Your task to perform on an android device: Add bose soundsport free to the cart on costco.com, then select checkout. Image 0: 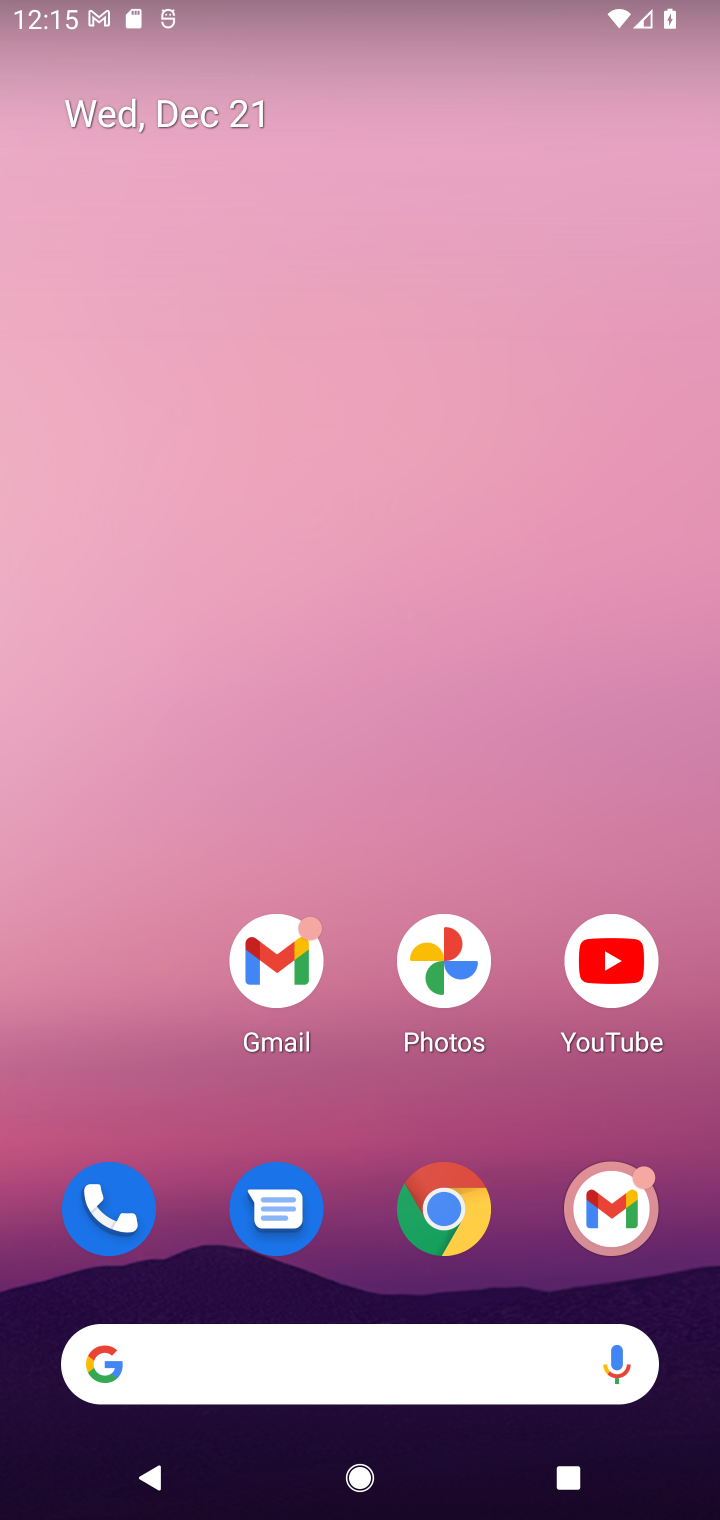
Step 0: click (457, 1215)
Your task to perform on an android device: Add bose soundsport free to the cart on costco.com, then select checkout. Image 1: 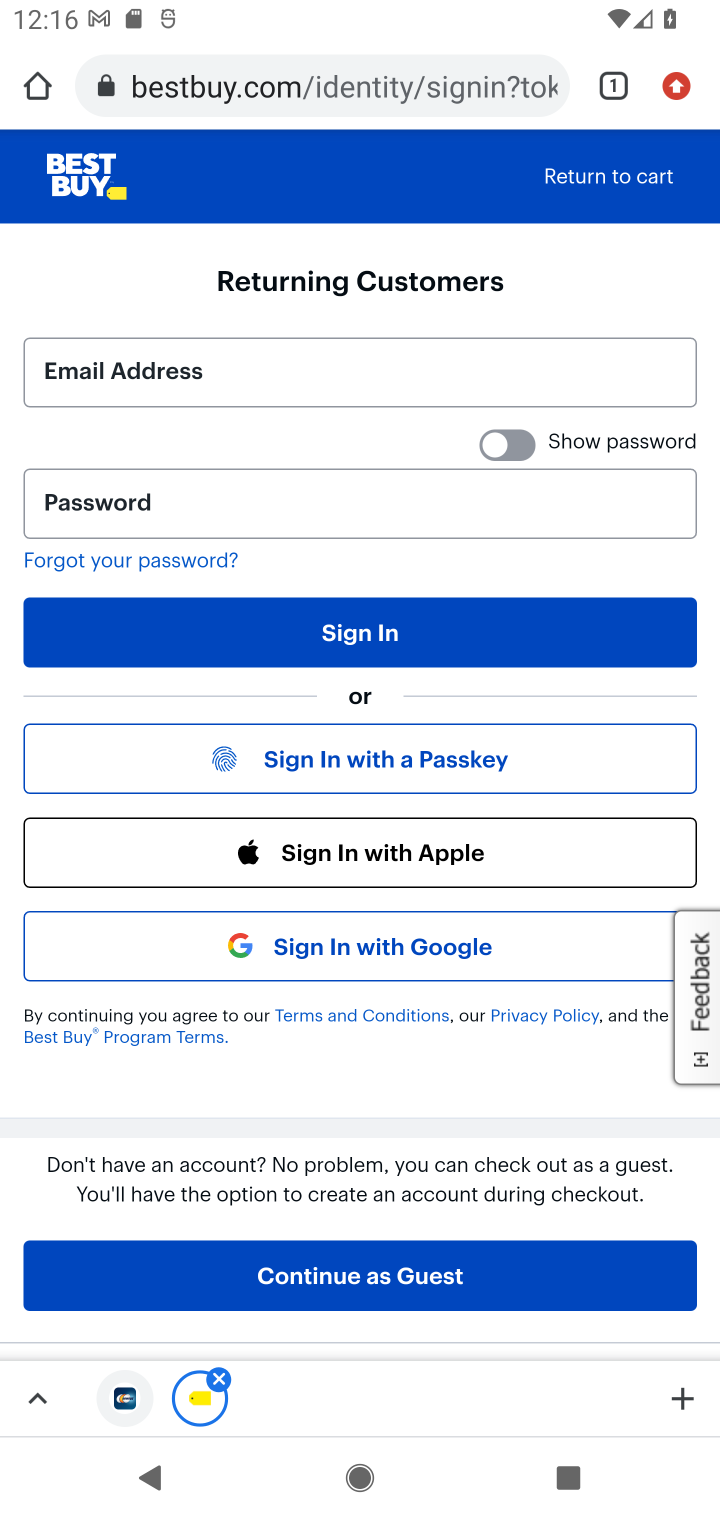
Step 1: click (238, 96)
Your task to perform on an android device: Add bose soundsport free to the cart on costco.com, then select checkout. Image 2: 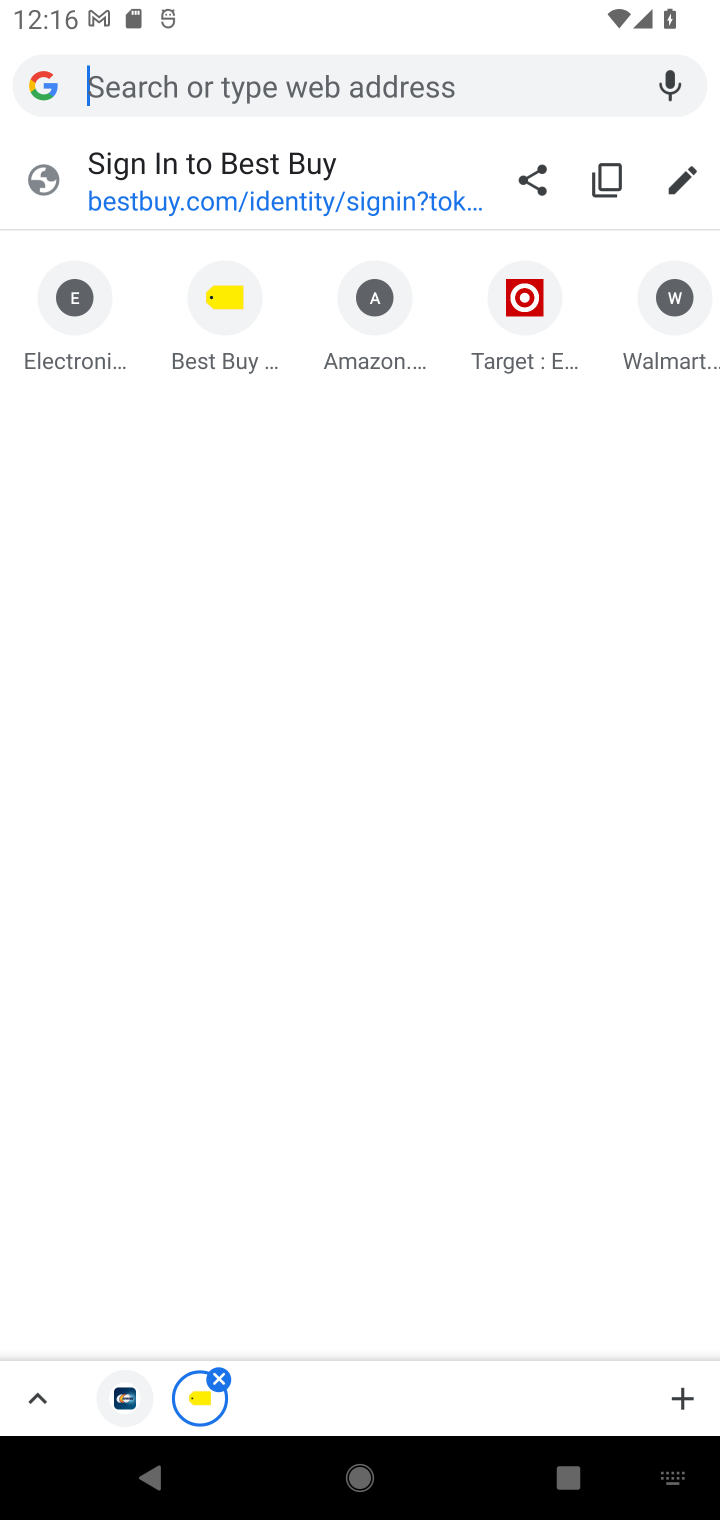
Step 2: type "costco.com"
Your task to perform on an android device: Add bose soundsport free to the cart on costco.com, then select checkout. Image 3: 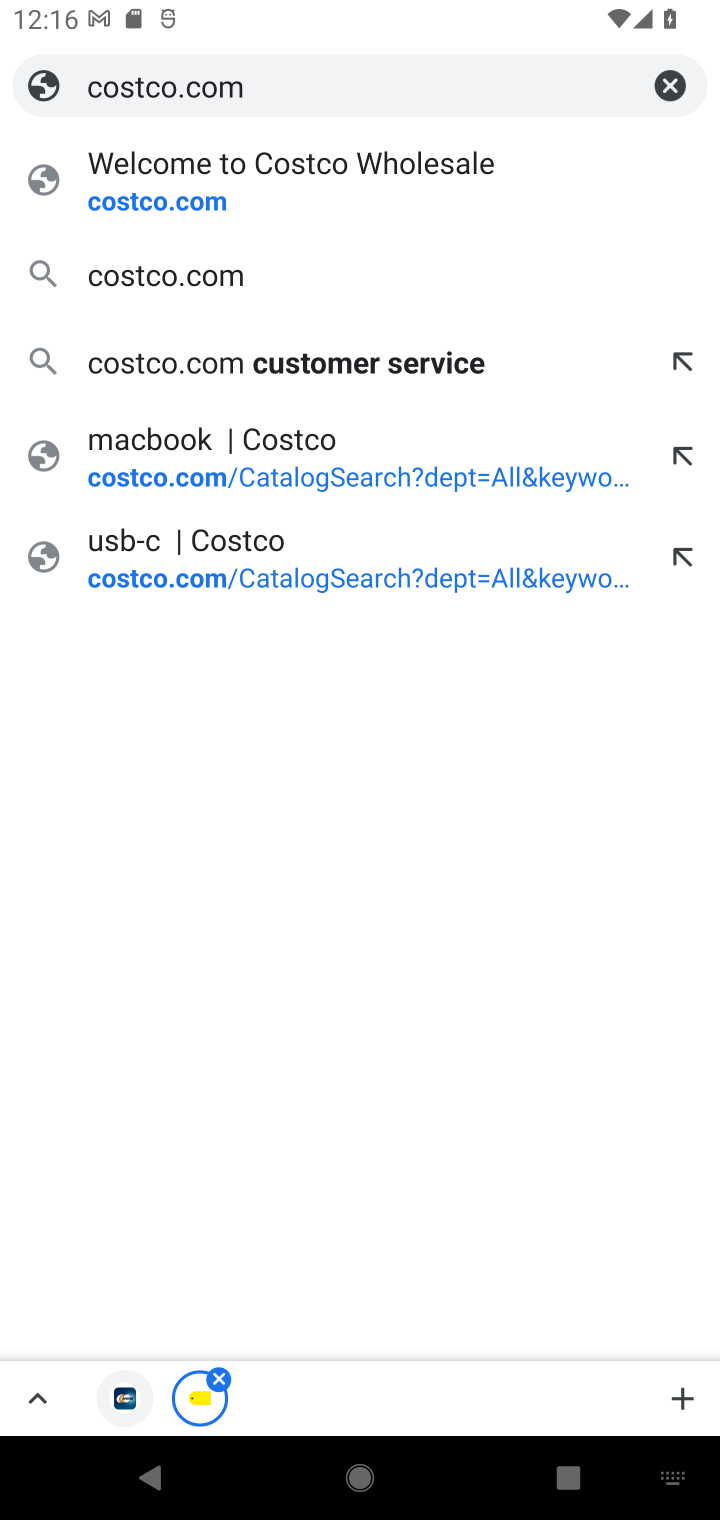
Step 3: click (117, 206)
Your task to perform on an android device: Add bose soundsport free to the cart on costco.com, then select checkout. Image 4: 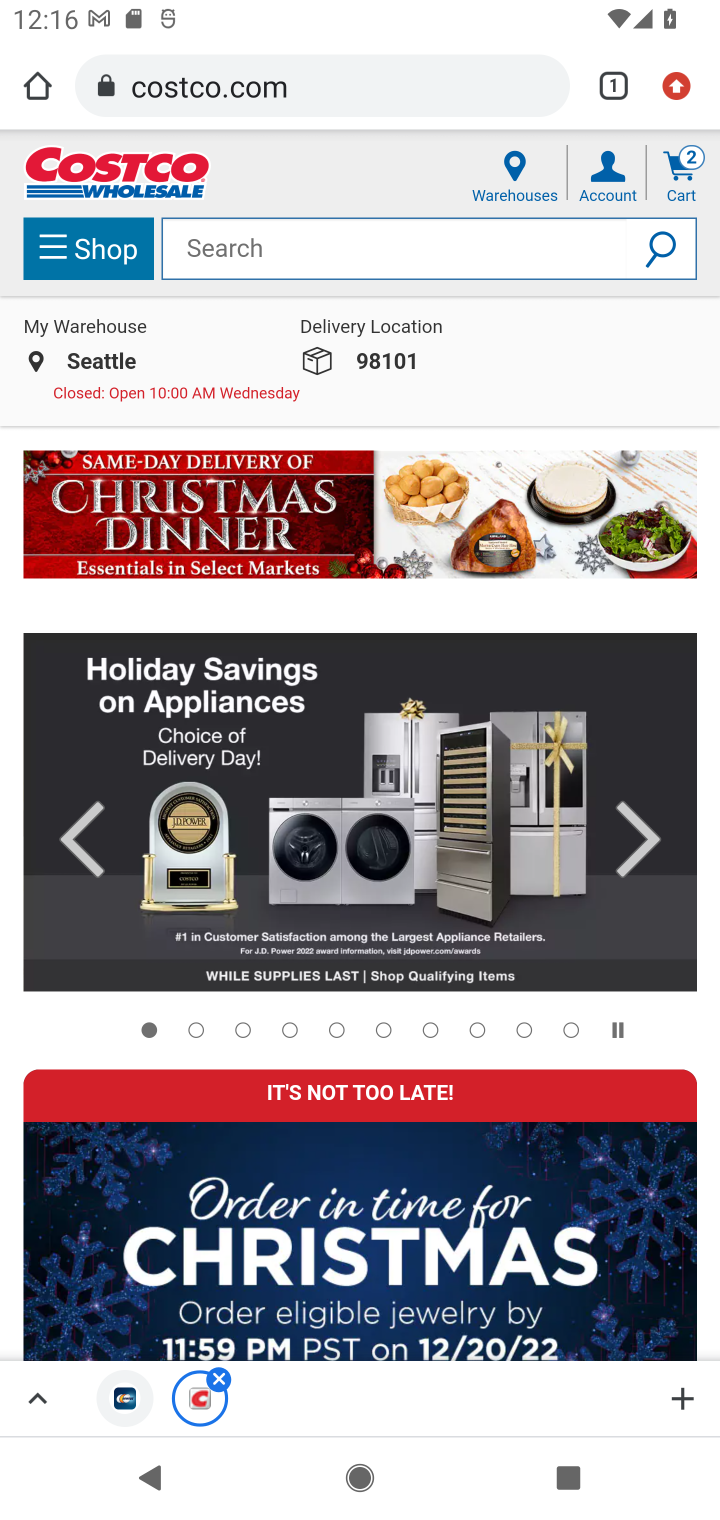
Step 4: click (208, 260)
Your task to perform on an android device: Add bose soundsport free to the cart on costco.com, then select checkout. Image 5: 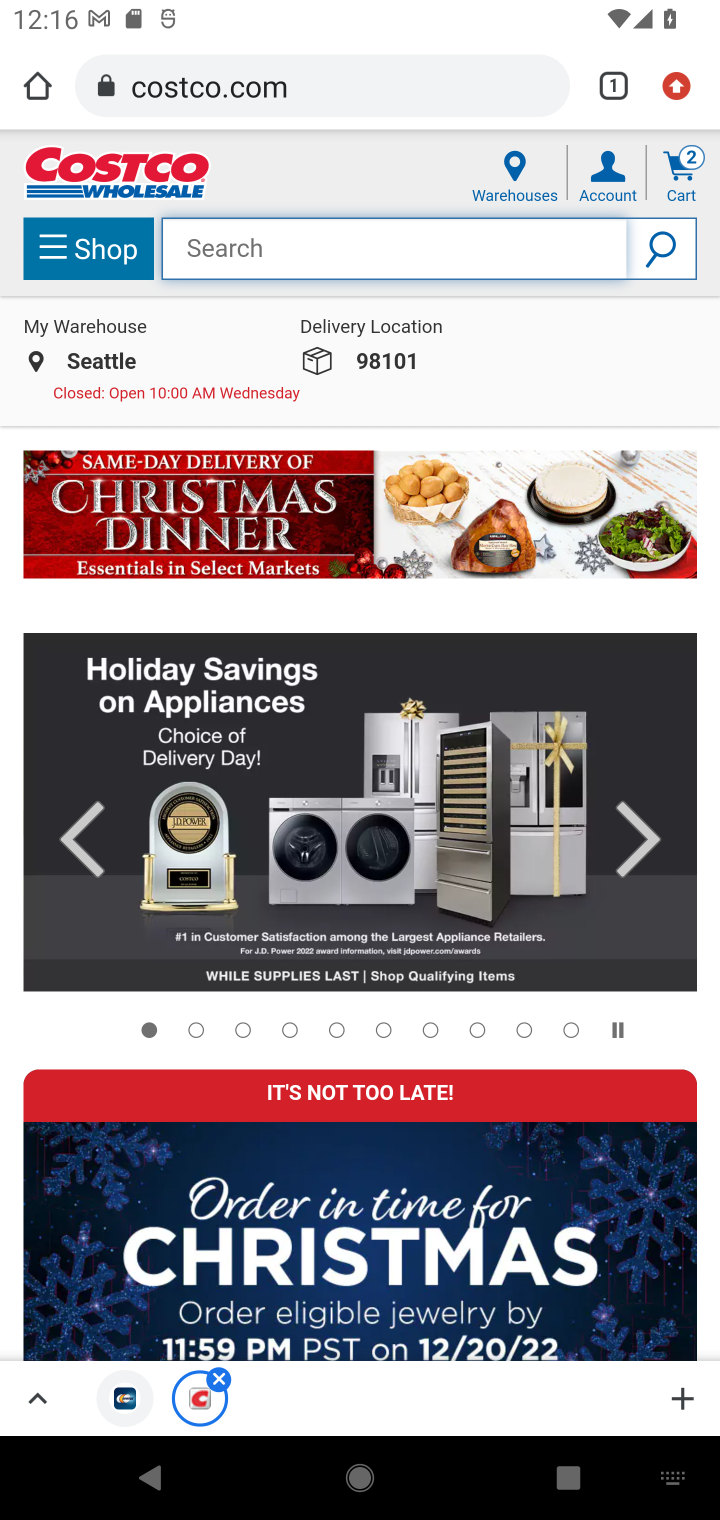
Step 5: type "bose soundsport free "
Your task to perform on an android device: Add bose soundsport free to the cart on costco.com, then select checkout. Image 6: 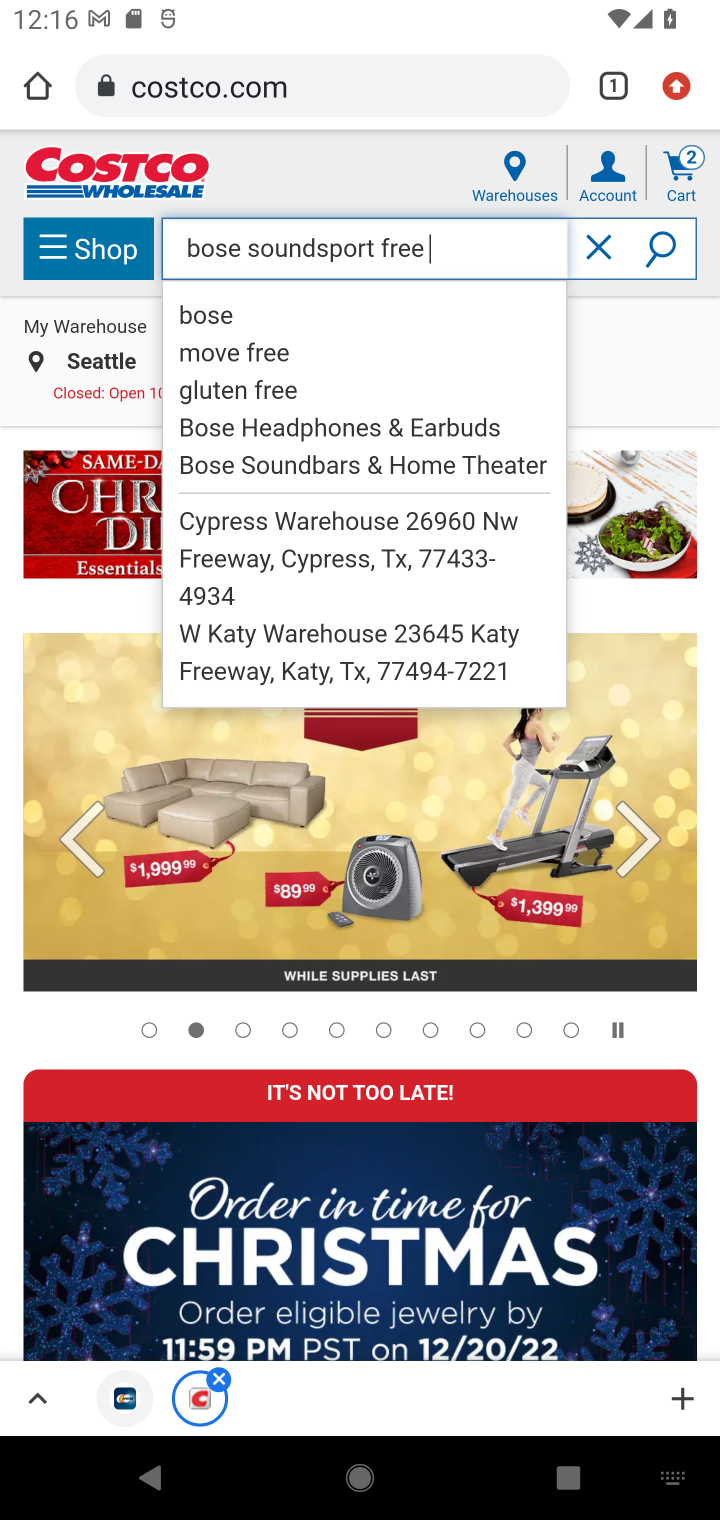
Step 6: click (662, 262)
Your task to perform on an android device: Add bose soundsport free to the cart on costco.com, then select checkout. Image 7: 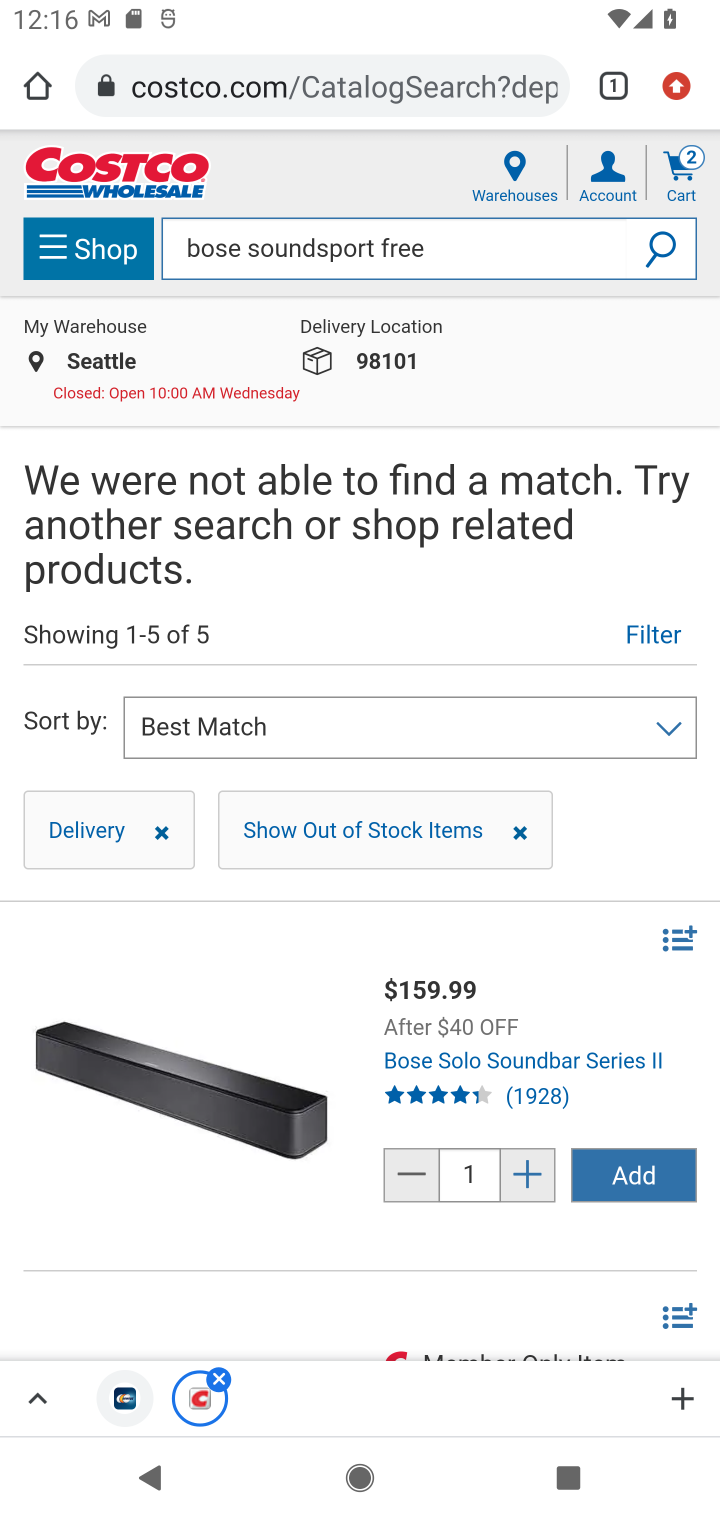
Step 7: task complete